Your task to perform on an android device: Go to Yahoo.com Image 0: 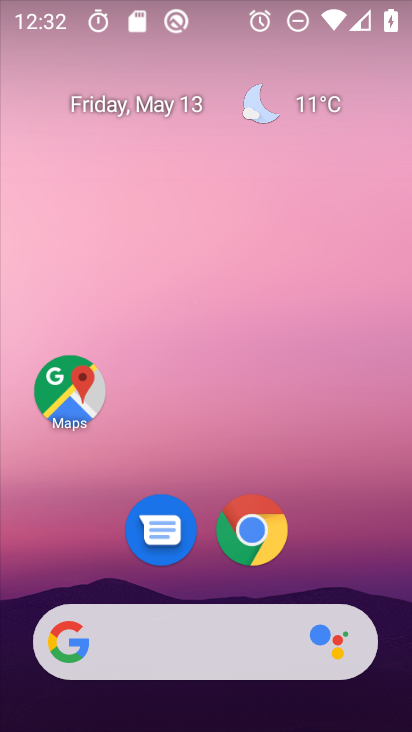
Step 0: drag from (217, 672) to (316, 88)
Your task to perform on an android device: Go to Yahoo.com Image 1: 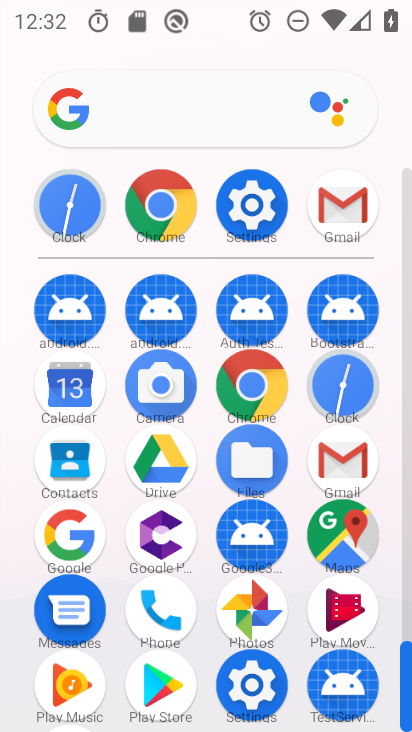
Step 1: click (149, 199)
Your task to perform on an android device: Go to Yahoo.com Image 2: 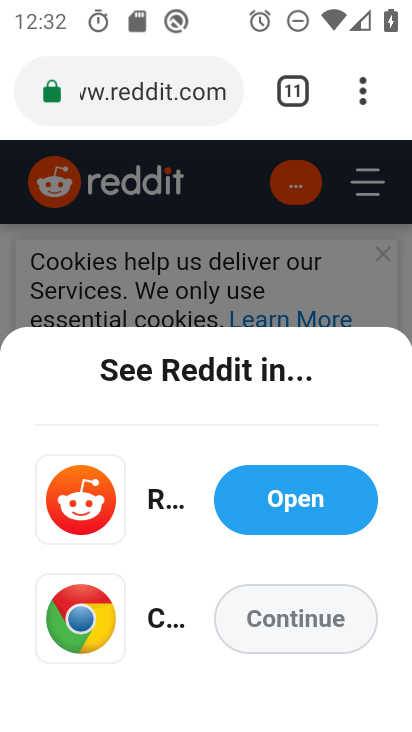
Step 2: drag from (363, 93) to (210, 175)
Your task to perform on an android device: Go to Yahoo.com Image 3: 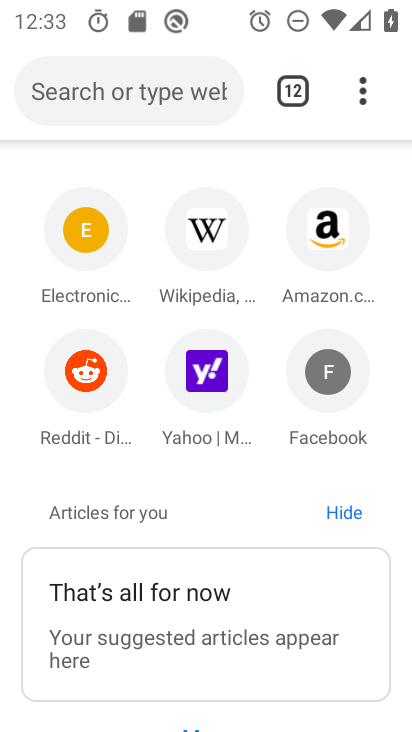
Step 3: click (206, 387)
Your task to perform on an android device: Go to Yahoo.com Image 4: 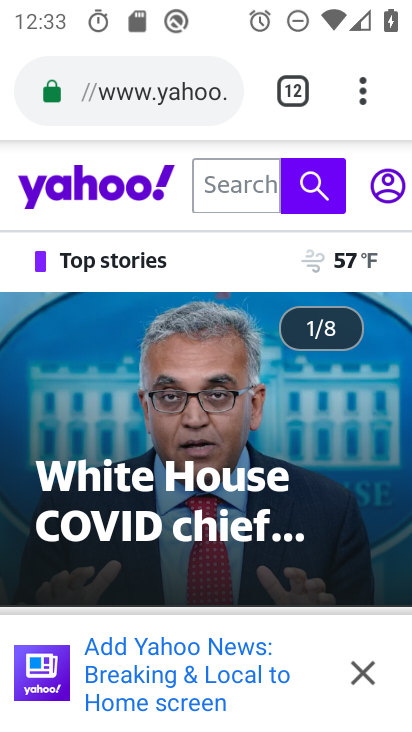
Step 4: task complete